Your task to perform on an android device: Check the weather Image 0: 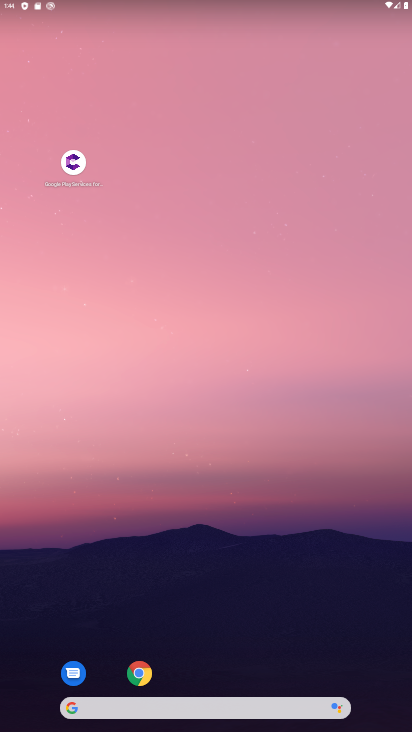
Step 0: drag from (158, 705) to (172, 116)
Your task to perform on an android device: Check the weather Image 1: 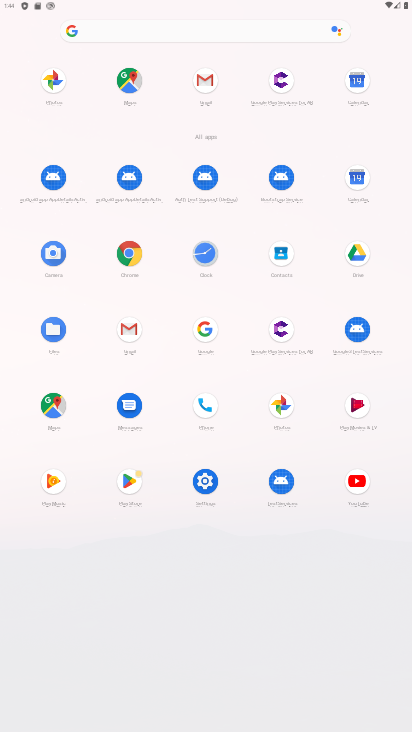
Step 1: click (203, 329)
Your task to perform on an android device: Check the weather Image 2: 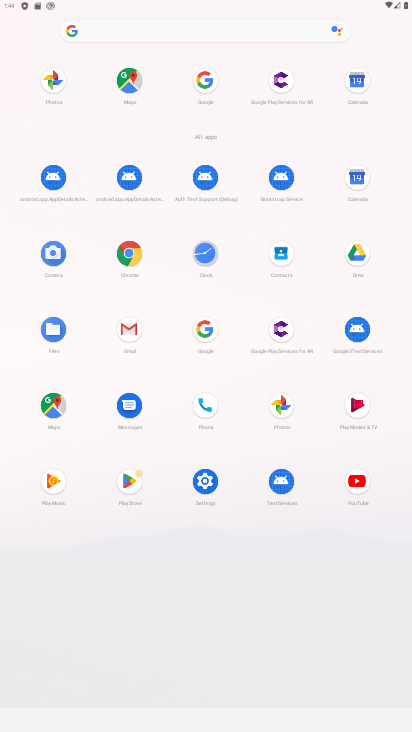
Step 2: click (206, 331)
Your task to perform on an android device: Check the weather Image 3: 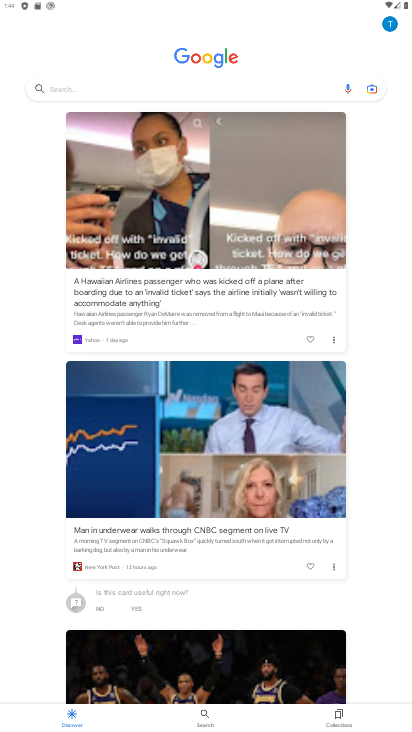
Step 3: click (229, 85)
Your task to perform on an android device: Check the weather Image 4: 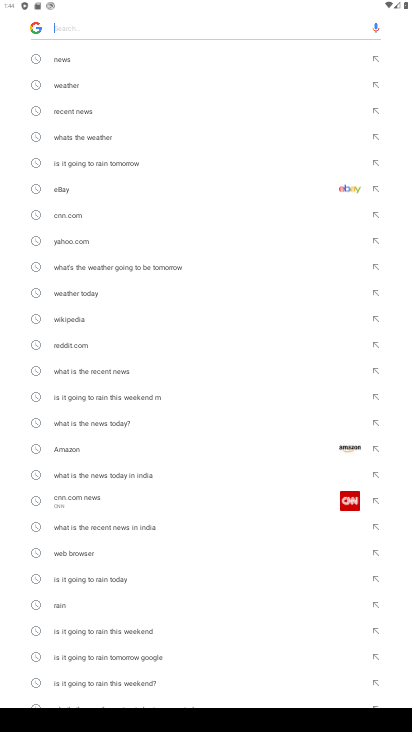
Step 4: click (61, 90)
Your task to perform on an android device: Check the weather Image 5: 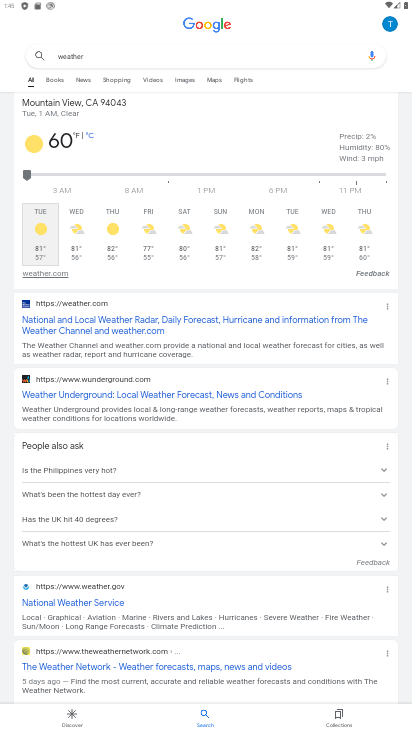
Step 5: task complete